Your task to perform on an android device: allow cookies in the chrome app Image 0: 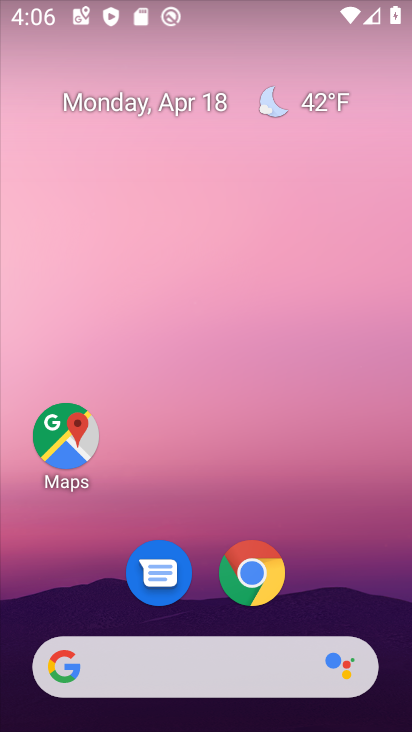
Step 0: click (248, 572)
Your task to perform on an android device: allow cookies in the chrome app Image 1: 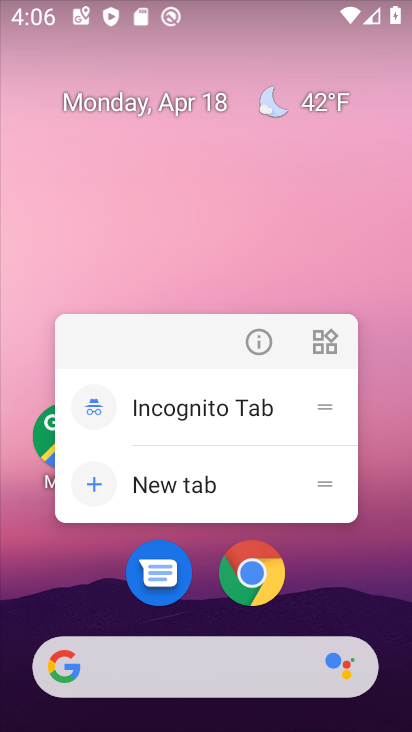
Step 1: click (248, 572)
Your task to perform on an android device: allow cookies in the chrome app Image 2: 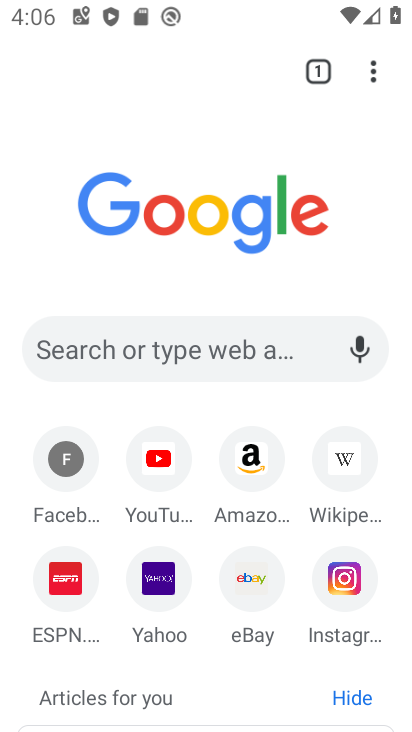
Step 2: click (372, 74)
Your task to perform on an android device: allow cookies in the chrome app Image 3: 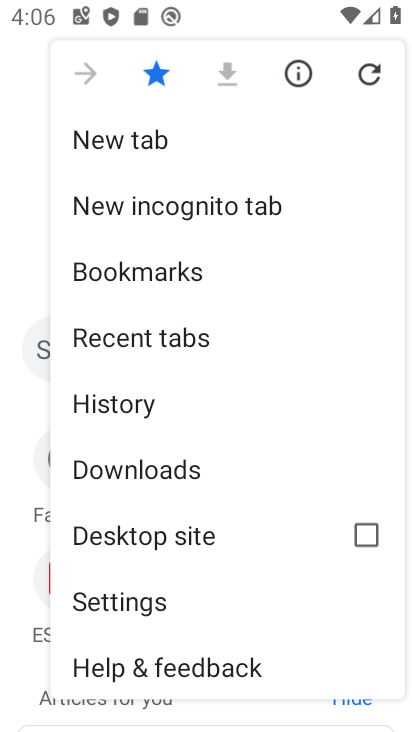
Step 3: click (141, 600)
Your task to perform on an android device: allow cookies in the chrome app Image 4: 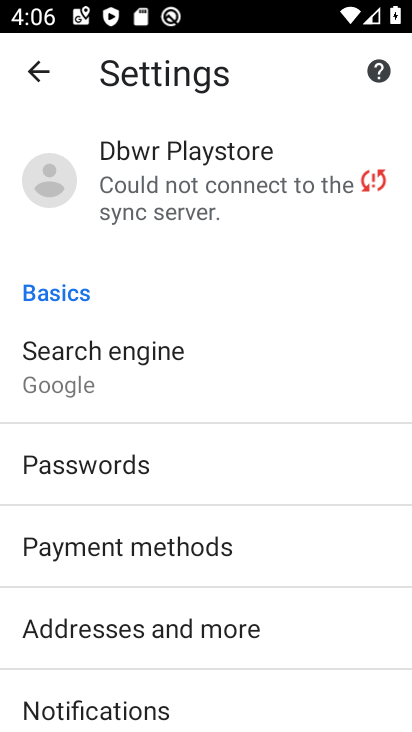
Step 4: drag from (107, 718) to (95, 342)
Your task to perform on an android device: allow cookies in the chrome app Image 5: 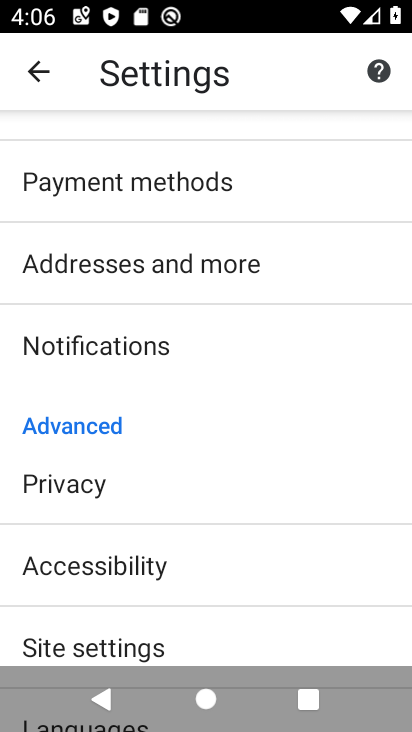
Step 5: click (98, 652)
Your task to perform on an android device: allow cookies in the chrome app Image 6: 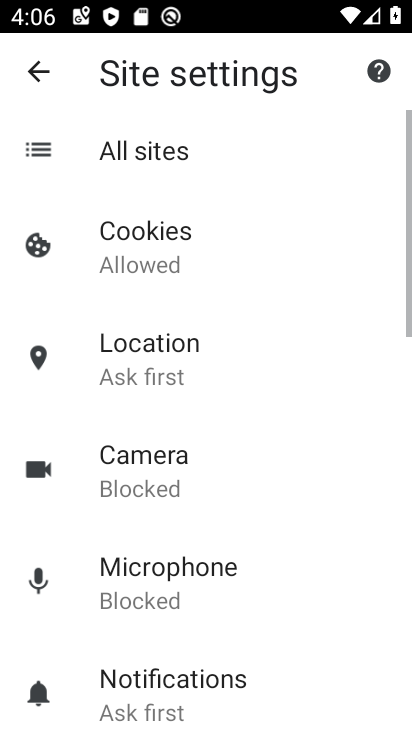
Step 6: click (133, 263)
Your task to perform on an android device: allow cookies in the chrome app Image 7: 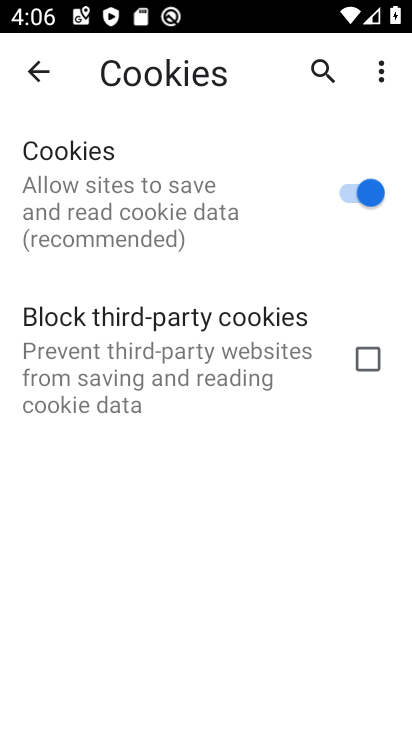
Step 7: task complete